Your task to perform on an android device: Open accessibility settings Image 0: 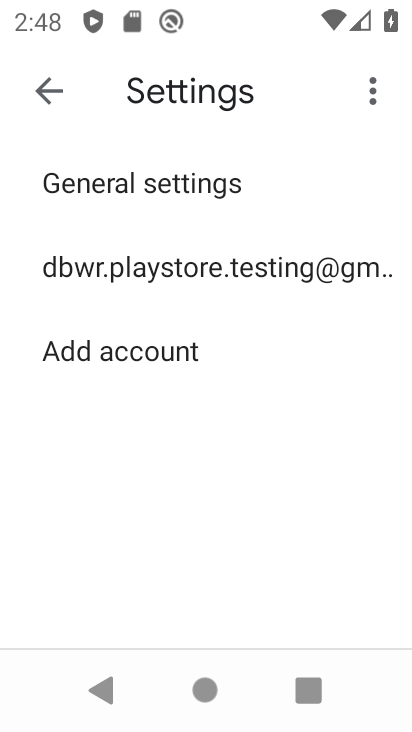
Step 0: press home button
Your task to perform on an android device: Open accessibility settings Image 1: 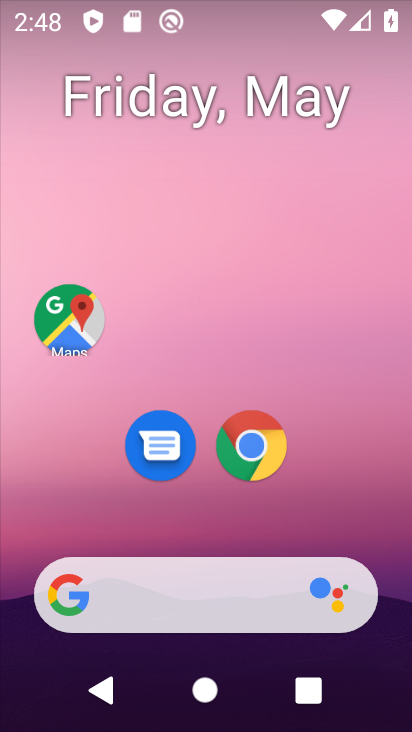
Step 1: drag from (214, 642) to (21, 79)
Your task to perform on an android device: Open accessibility settings Image 2: 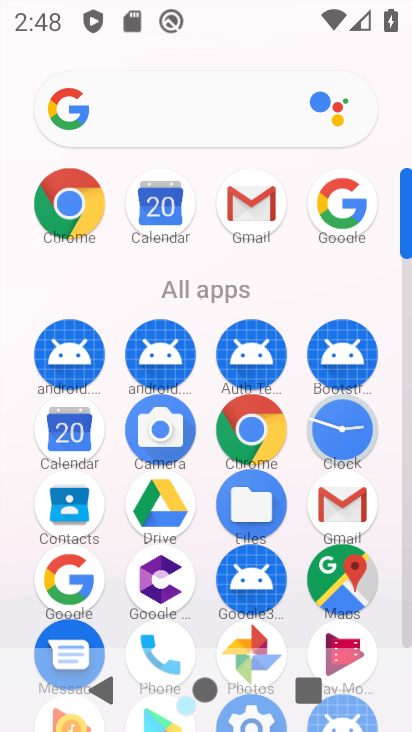
Step 2: drag from (205, 388) to (1, 110)
Your task to perform on an android device: Open accessibility settings Image 3: 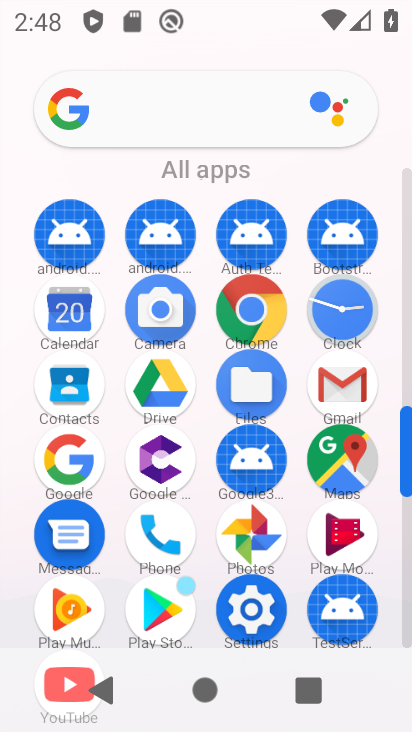
Step 3: click (243, 618)
Your task to perform on an android device: Open accessibility settings Image 4: 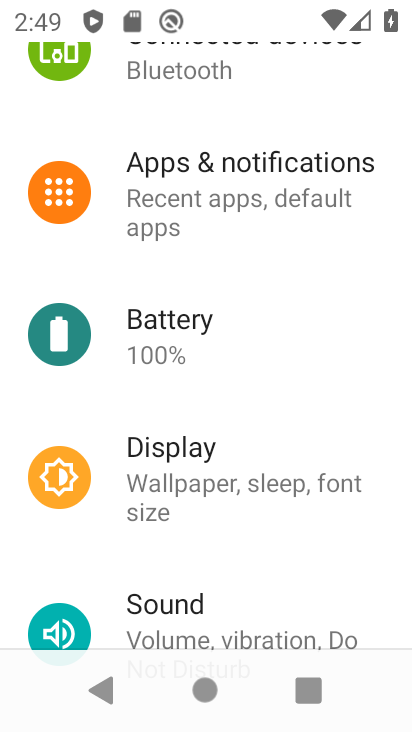
Step 4: drag from (214, 526) to (185, 334)
Your task to perform on an android device: Open accessibility settings Image 5: 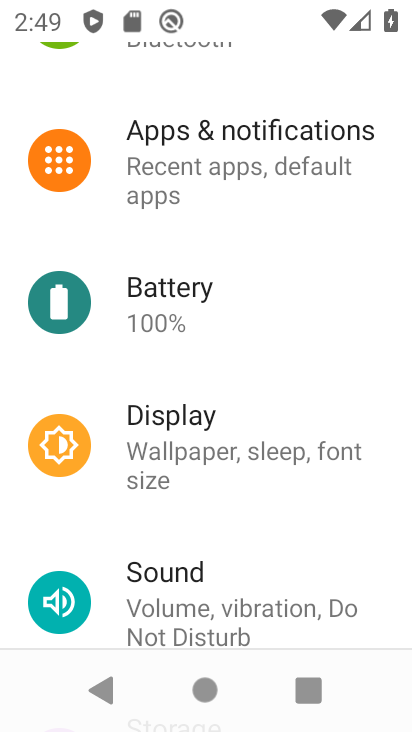
Step 5: drag from (185, 445) to (176, 203)
Your task to perform on an android device: Open accessibility settings Image 6: 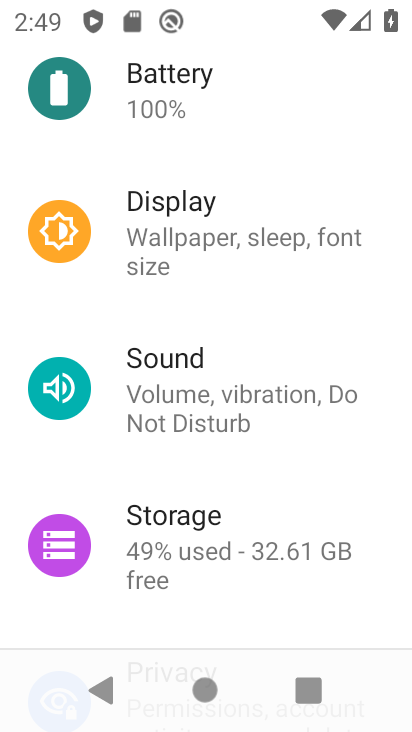
Step 6: drag from (174, 333) to (187, 149)
Your task to perform on an android device: Open accessibility settings Image 7: 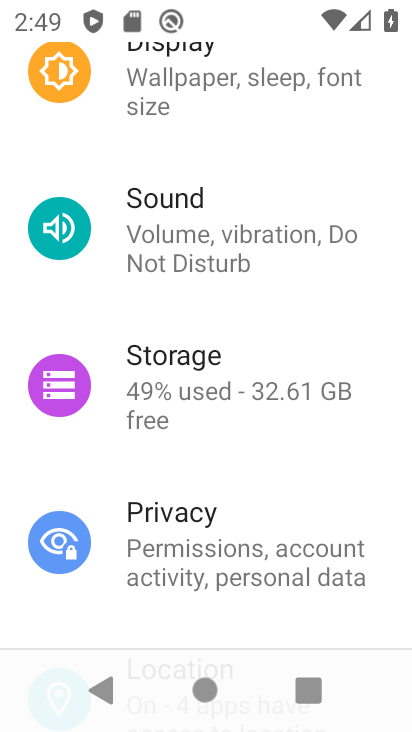
Step 7: drag from (225, 574) to (175, 93)
Your task to perform on an android device: Open accessibility settings Image 8: 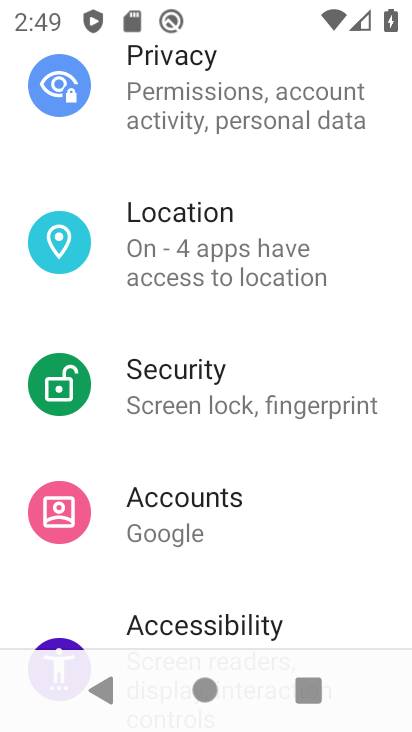
Step 8: drag from (267, 528) to (195, 227)
Your task to perform on an android device: Open accessibility settings Image 9: 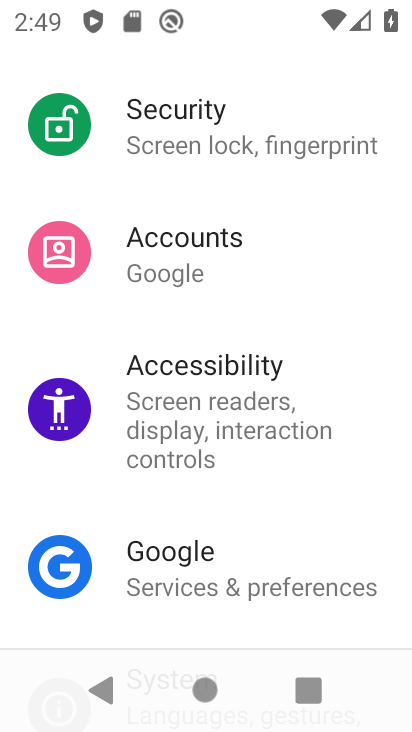
Step 9: click (194, 433)
Your task to perform on an android device: Open accessibility settings Image 10: 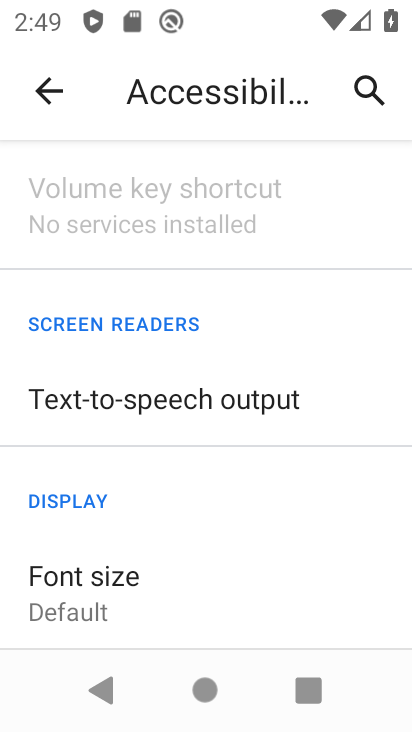
Step 10: task complete